Your task to perform on an android device: uninstall "Instagram" Image 0: 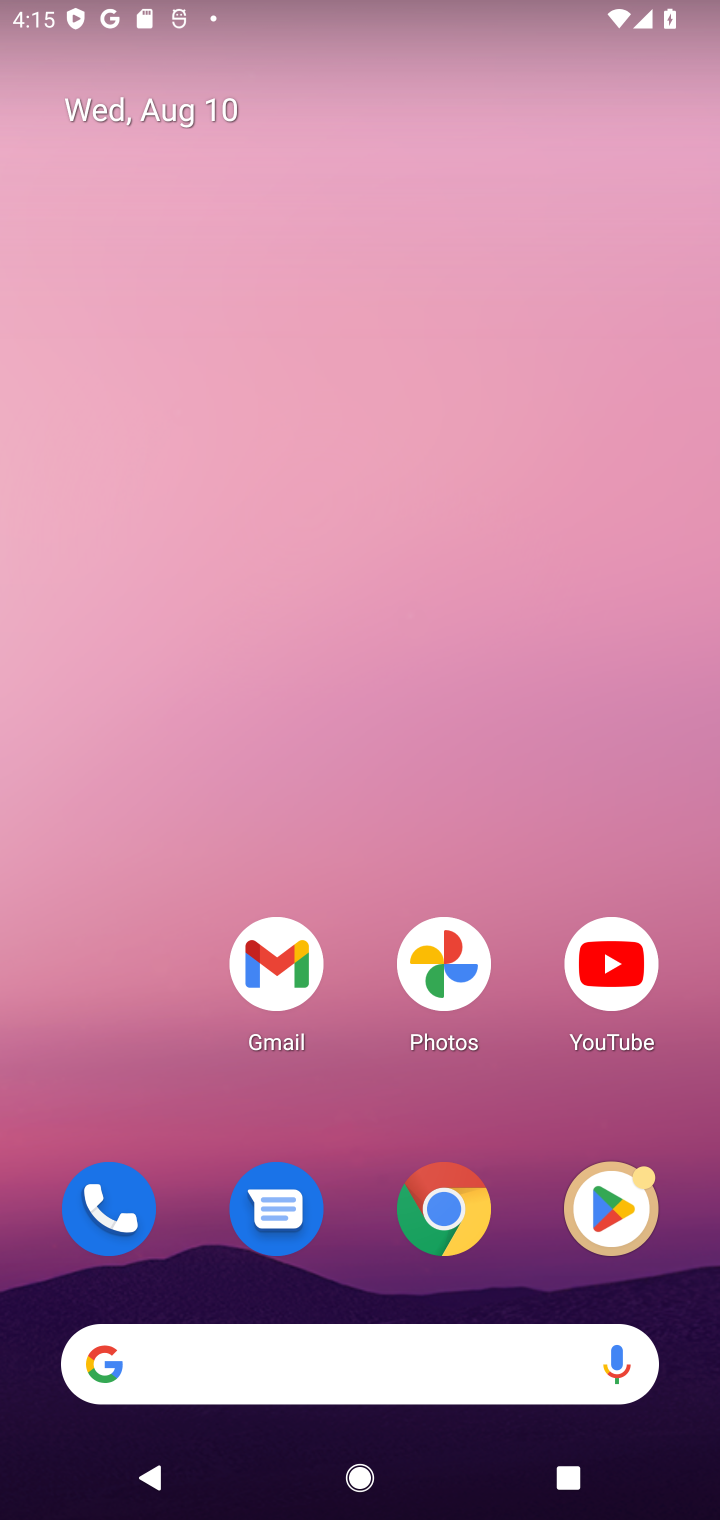
Step 0: click (573, 1236)
Your task to perform on an android device: uninstall "Instagram" Image 1: 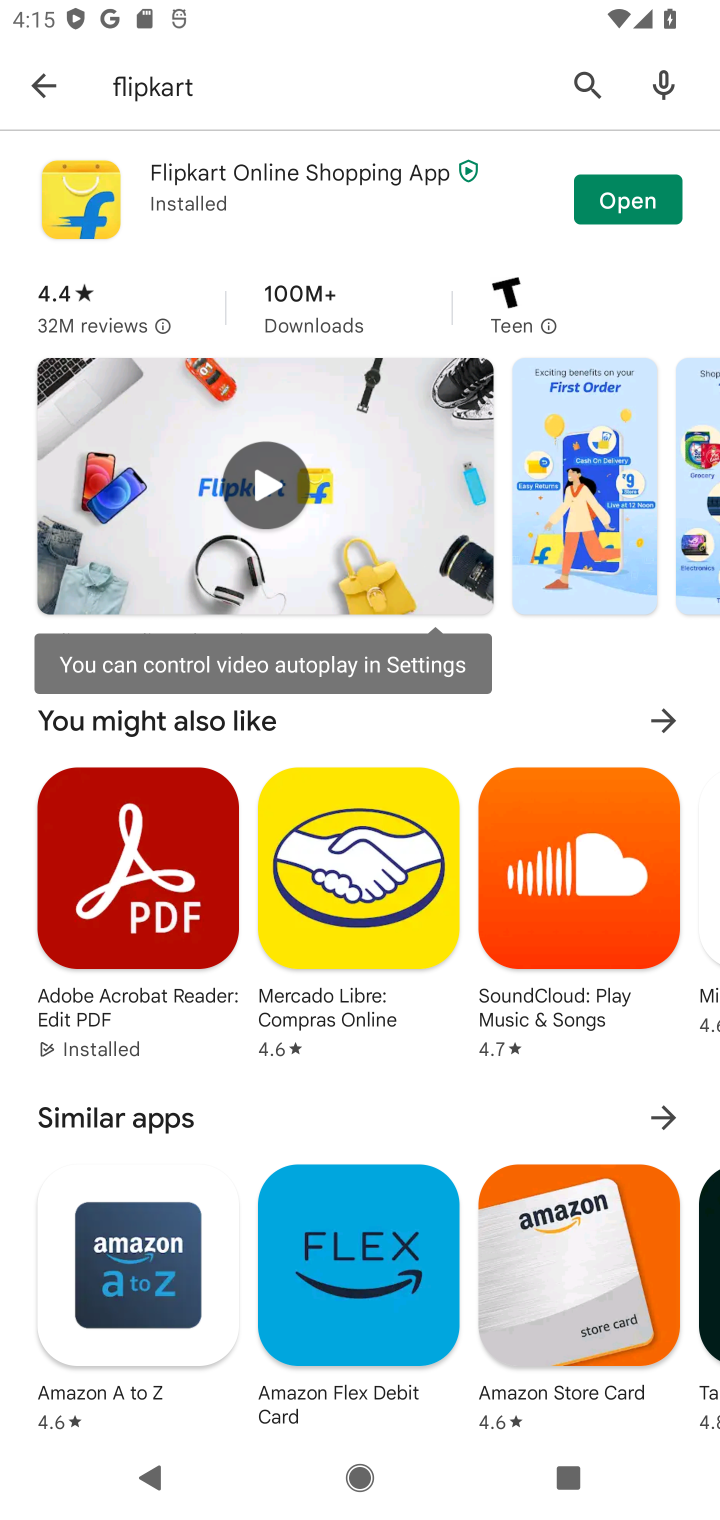
Step 1: click (600, 112)
Your task to perform on an android device: uninstall "Instagram" Image 2: 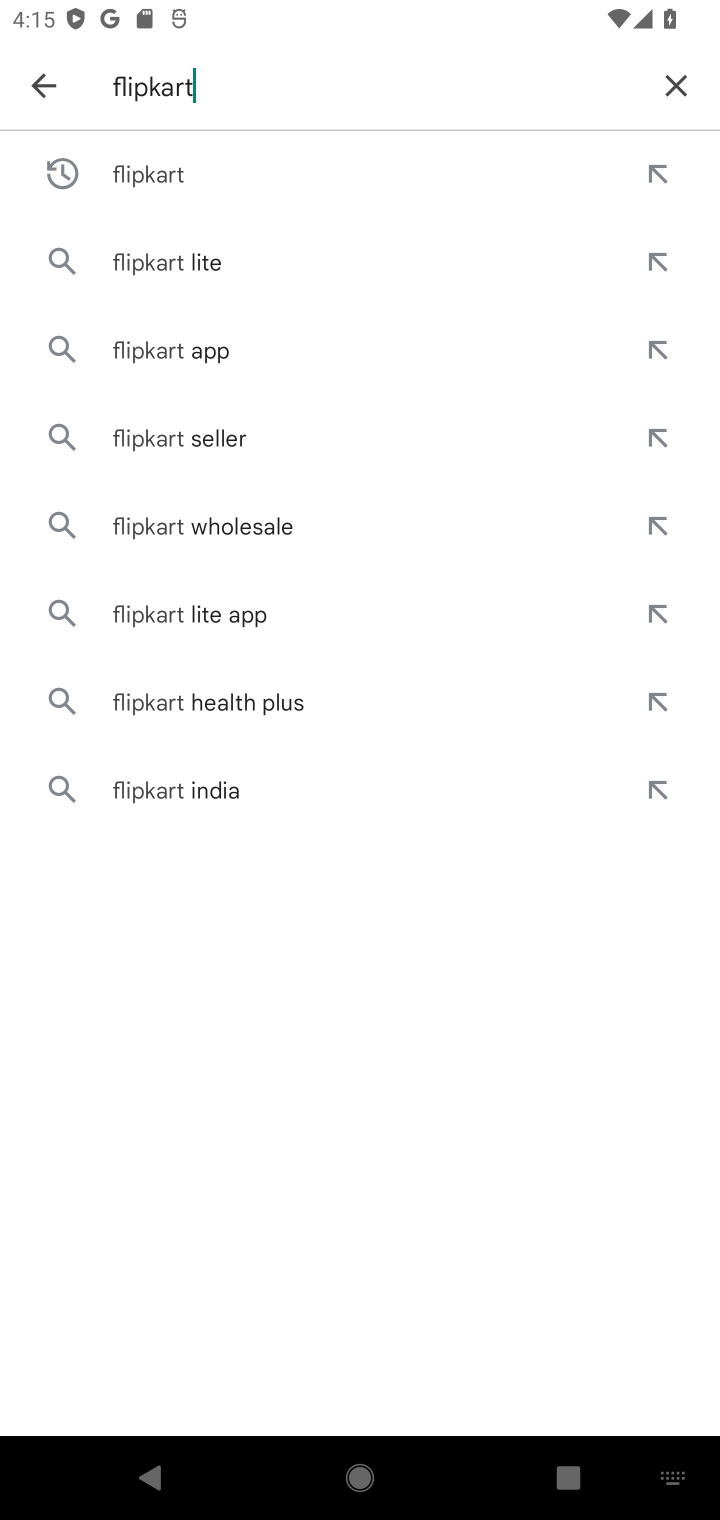
Step 2: click (656, 103)
Your task to perform on an android device: uninstall "Instagram" Image 3: 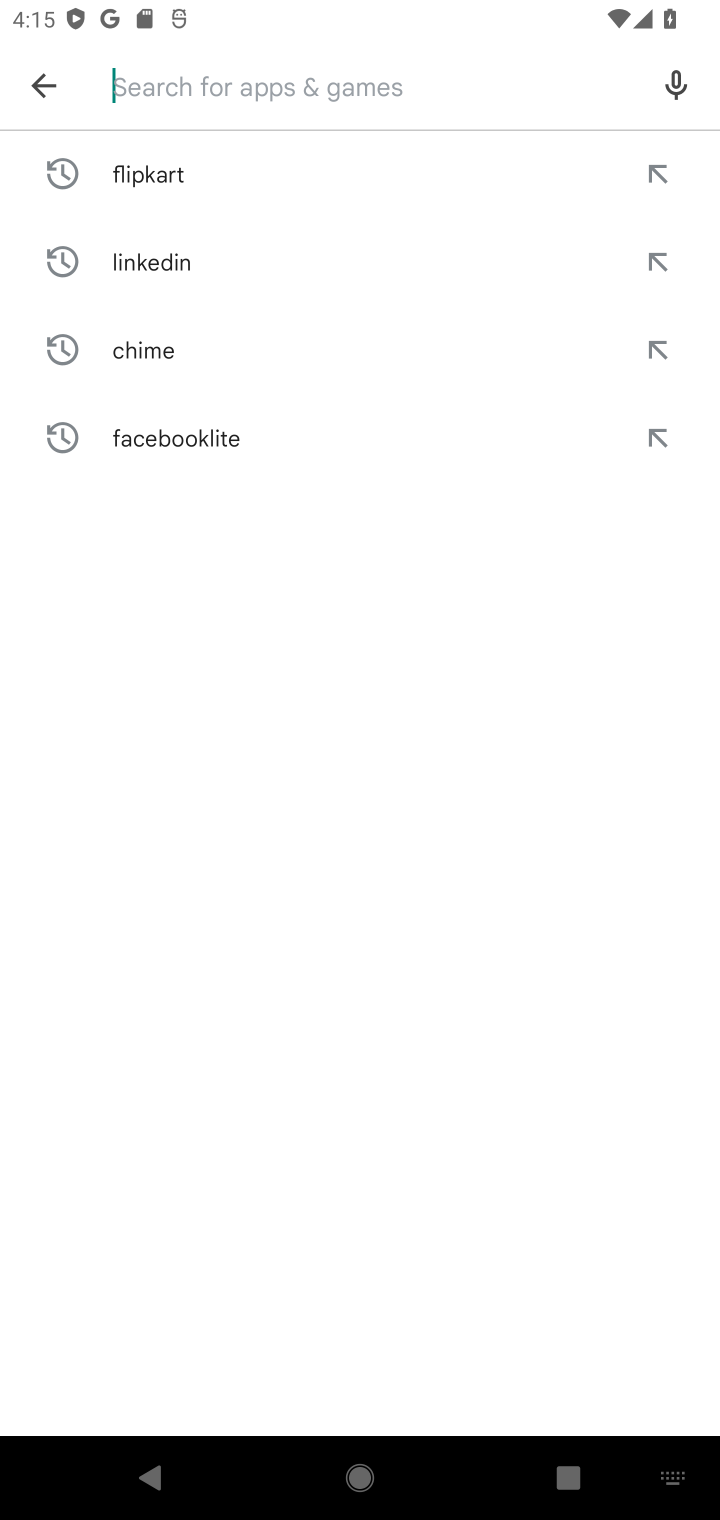
Step 3: type "instagram"
Your task to perform on an android device: uninstall "Instagram" Image 4: 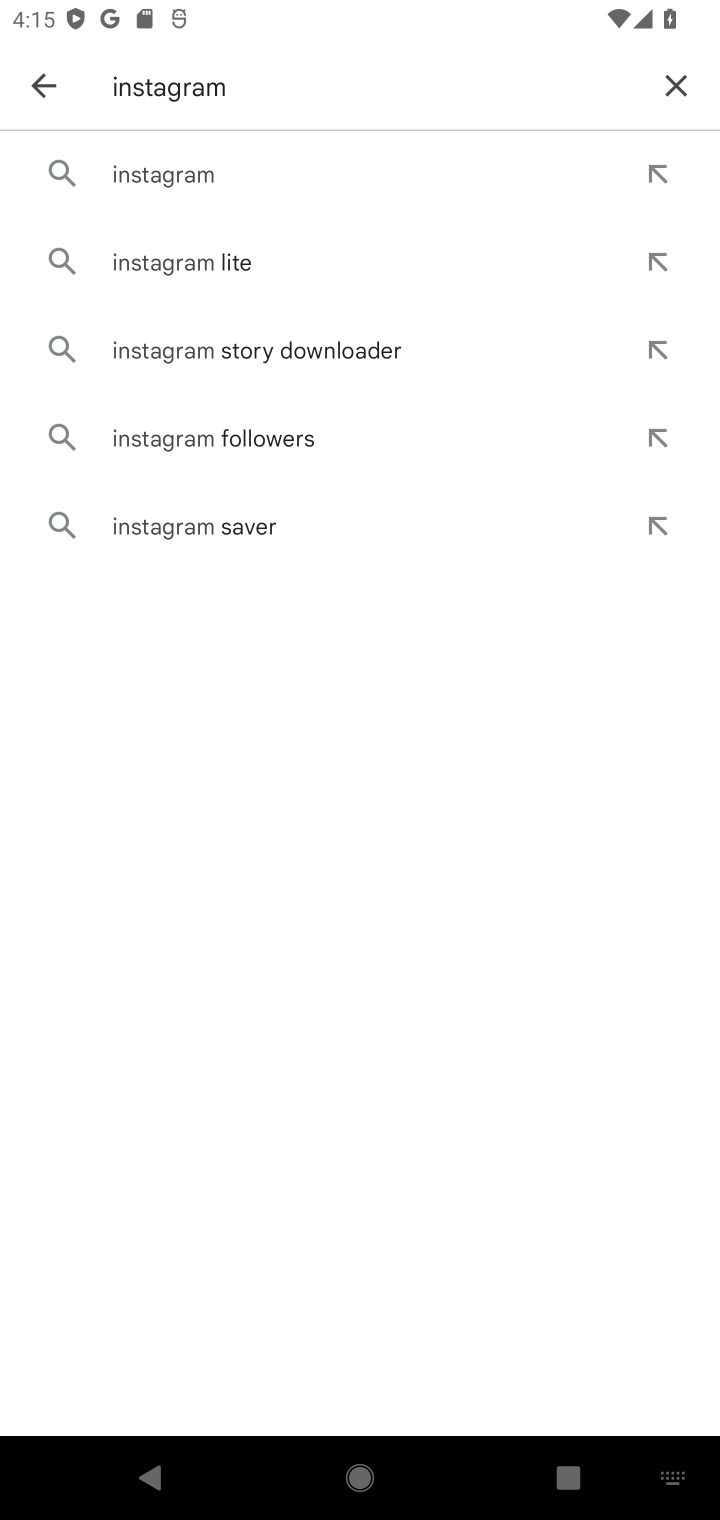
Step 4: click (428, 160)
Your task to perform on an android device: uninstall "Instagram" Image 5: 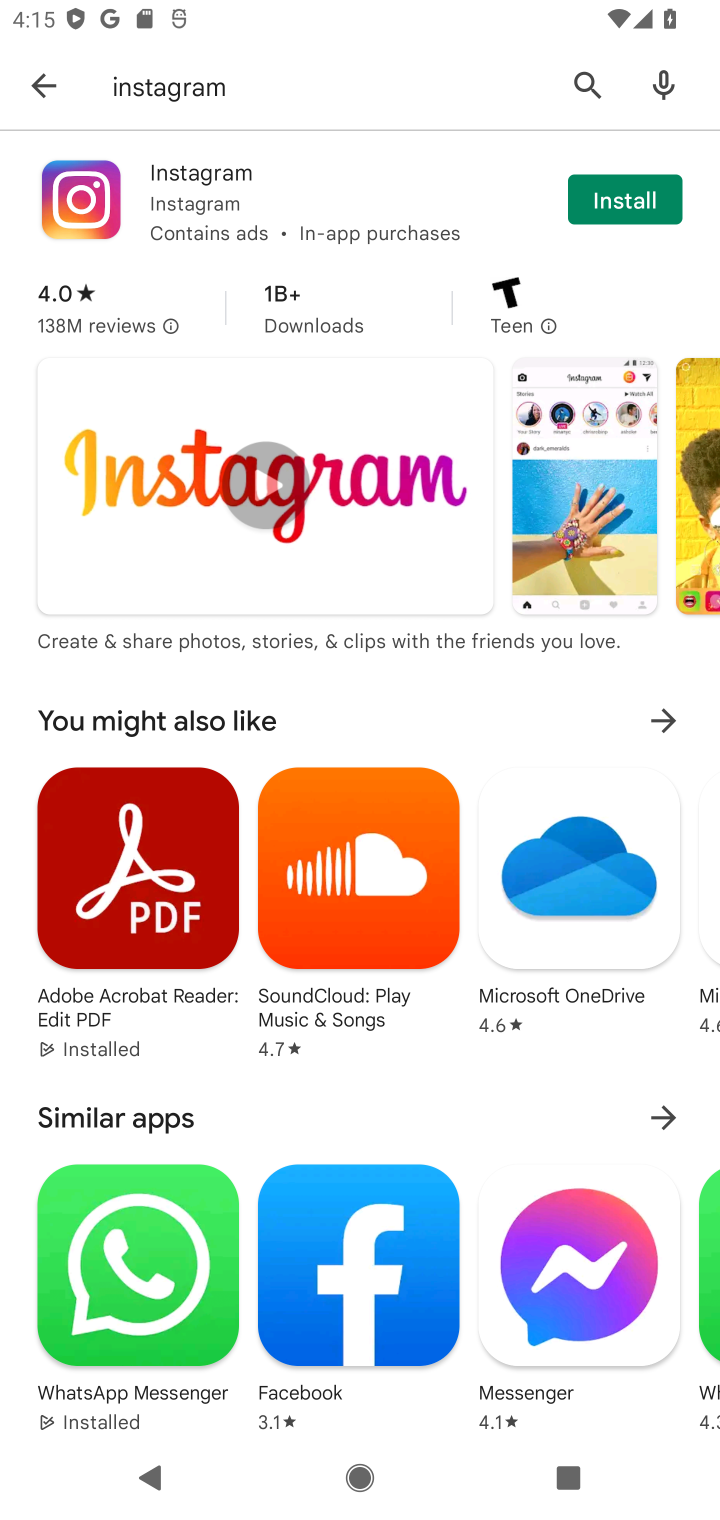
Step 5: click (633, 180)
Your task to perform on an android device: uninstall "Instagram" Image 6: 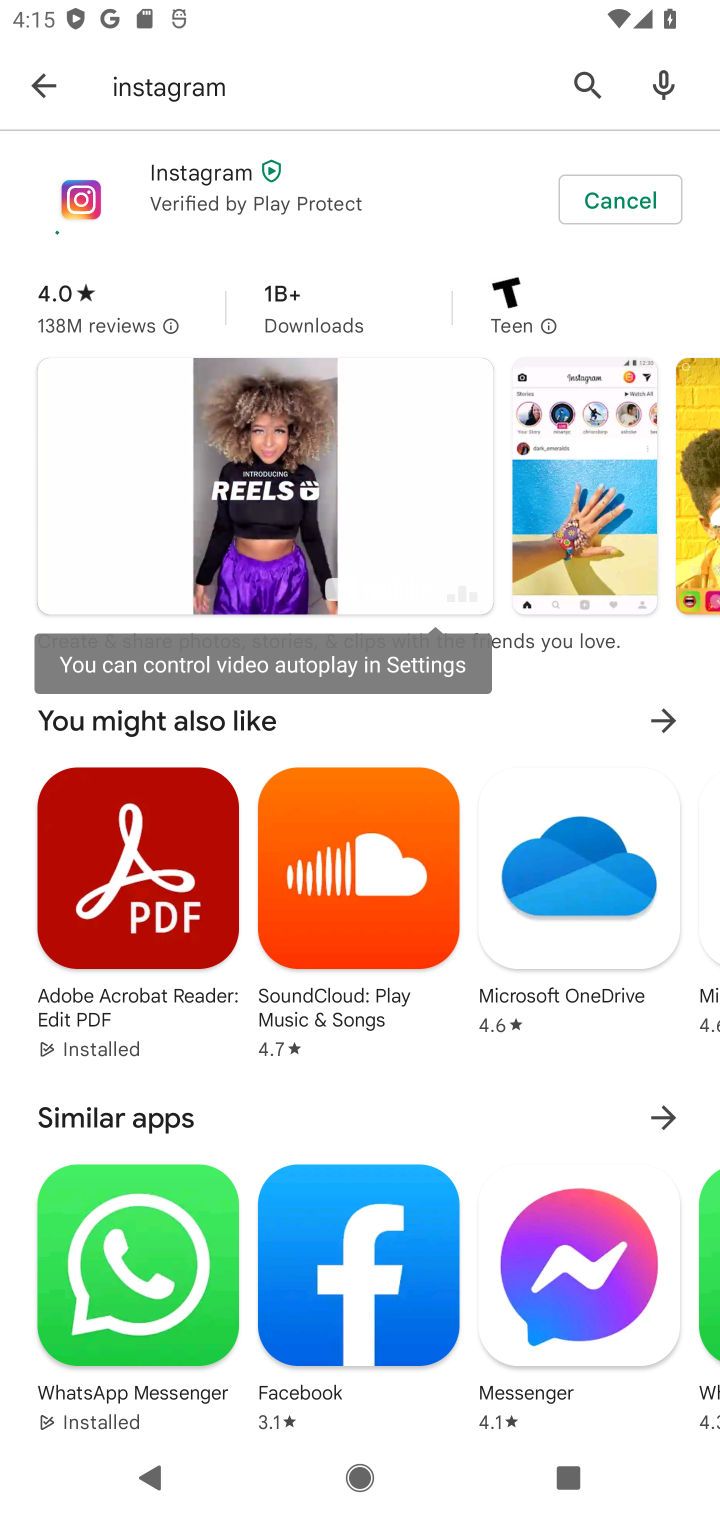
Step 6: task complete